Your task to perform on an android device: Toggle the flashlight Image 0: 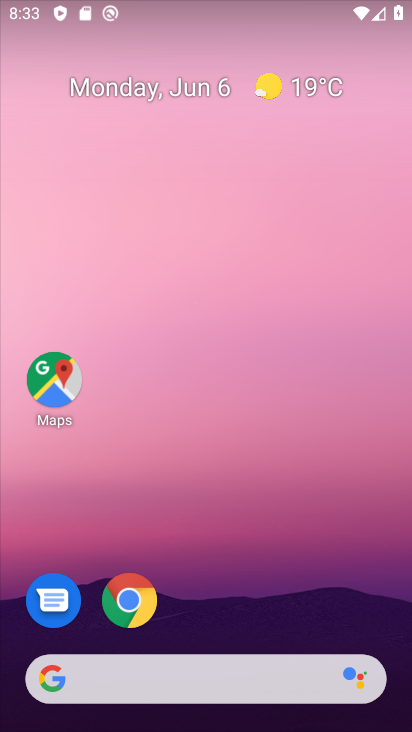
Step 0: drag from (210, 1) to (221, 623)
Your task to perform on an android device: Toggle the flashlight Image 1: 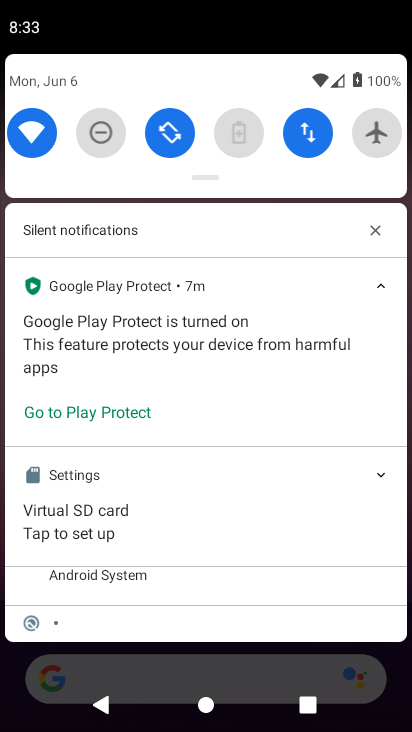
Step 1: task complete